Your task to perform on an android device: turn pop-ups on in chrome Image 0: 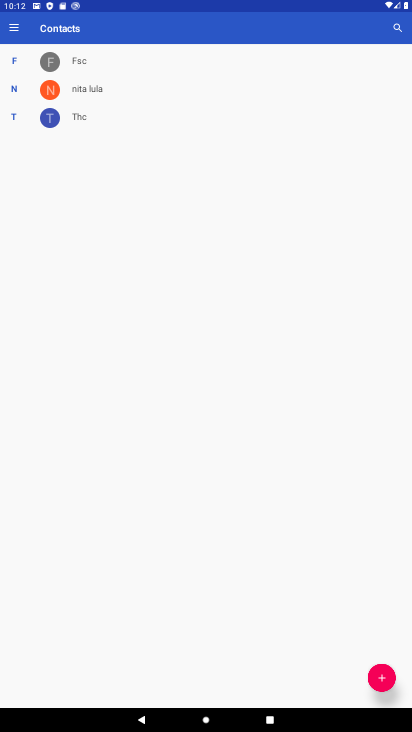
Step 0: press home button
Your task to perform on an android device: turn pop-ups on in chrome Image 1: 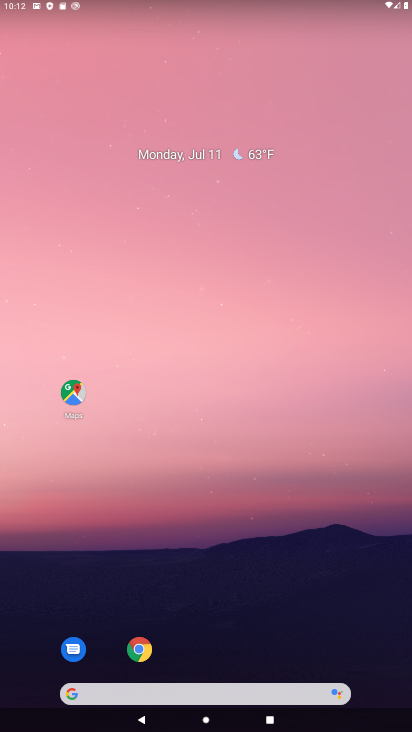
Step 1: click (131, 649)
Your task to perform on an android device: turn pop-ups on in chrome Image 2: 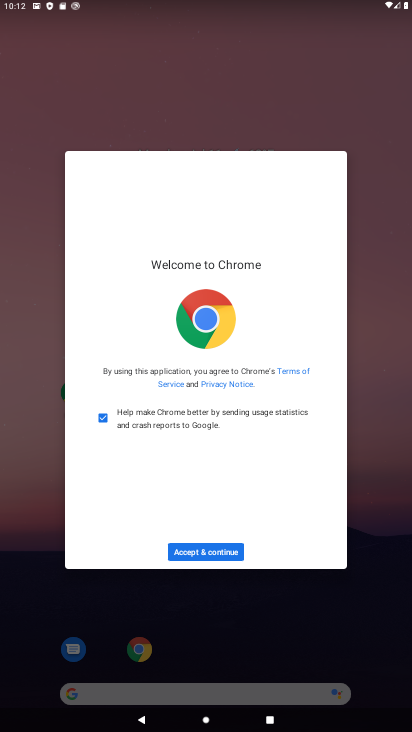
Step 2: click (211, 552)
Your task to perform on an android device: turn pop-ups on in chrome Image 3: 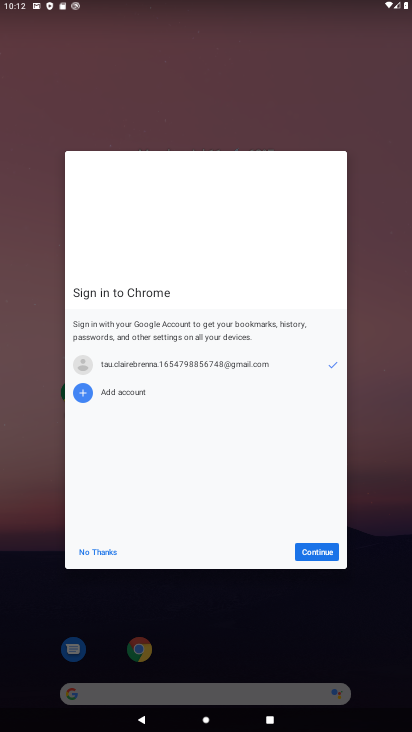
Step 3: click (339, 561)
Your task to perform on an android device: turn pop-ups on in chrome Image 4: 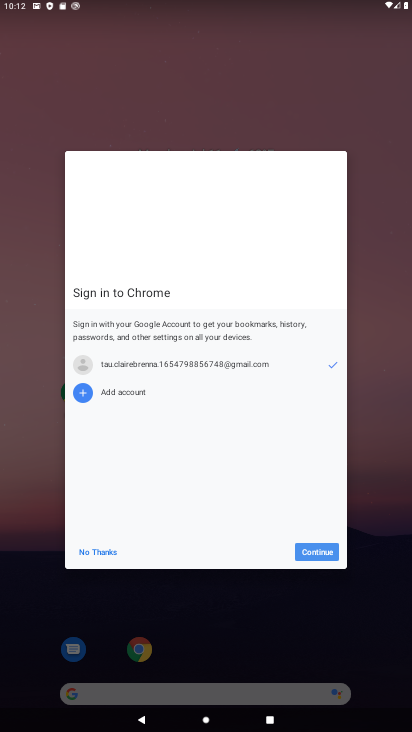
Step 4: click (334, 556)
Your task to perform on an android device: turn pop-ups on in chrome Image 5: 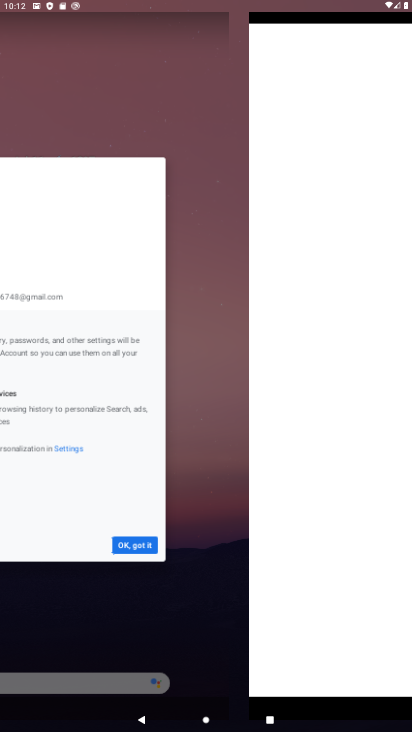
Step 5: click (334, 556)
Your task to perform on an android device: turn pop-ups on in chrome Image 6: 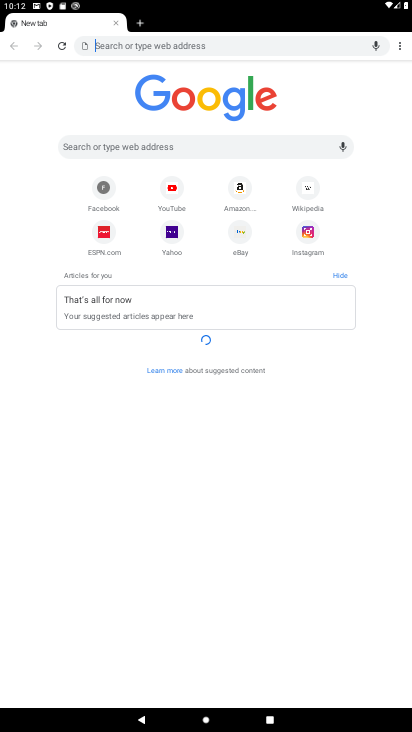
Step 6: click (402, 38)
Your task to perform on an android device: turn pop-ups on in chrome Image 7: 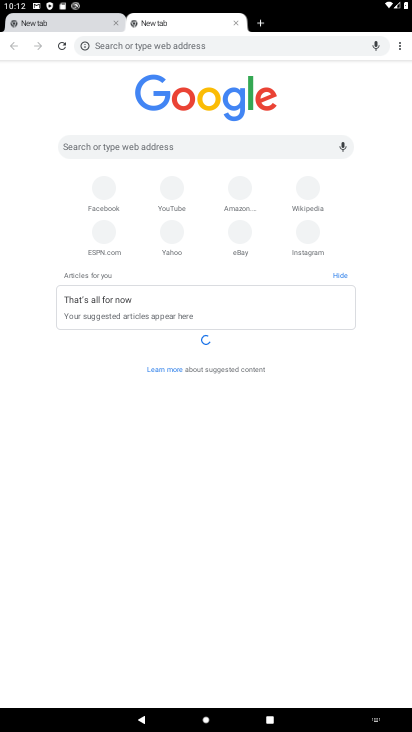
Step 7: click (402, 43)
Your task to perform on an android device: turn pop-ups on in chrome Image 8: 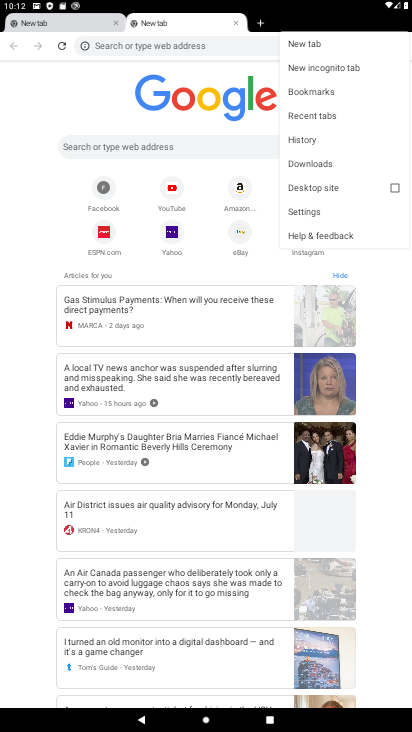
Step 8: click (310, 211)
Your task to perform on an android device: turn pop-ups on in chrome Image 9: 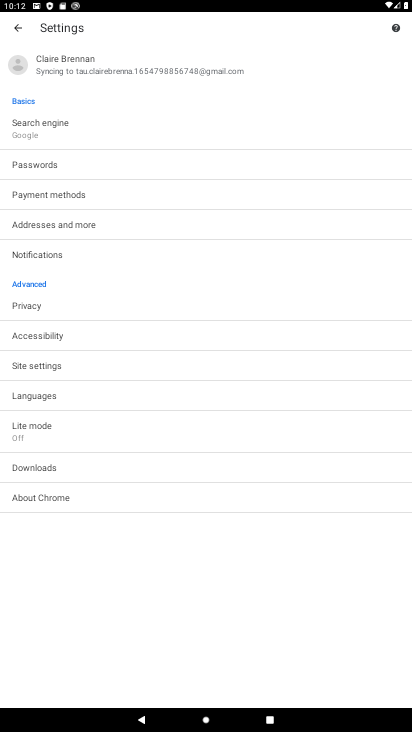
Step 9: click (78, 363)
Your task to perform on an android device: turn pop-ups on in chrome Image 10: 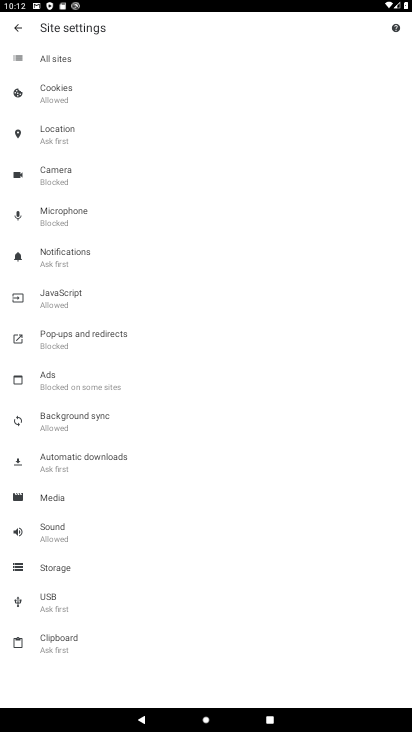
Step 10: click (87, 338)
Your task to perform on an android device: turn pop-ups on in chrome Image 11: 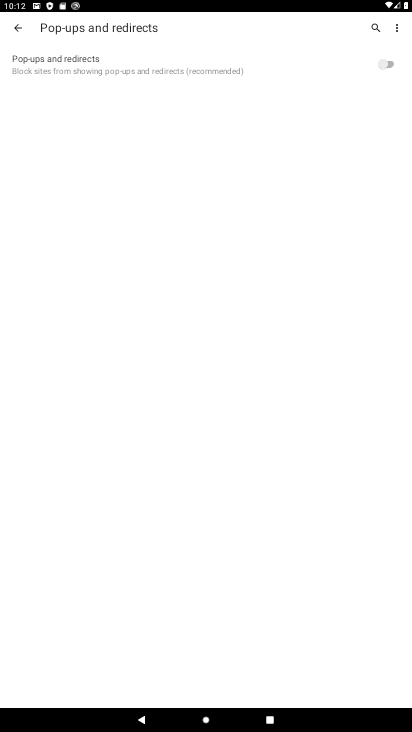
Step 11: click (378, 65)
Your task to perform on an android device: turn pop-ups on in chrome Image 12: 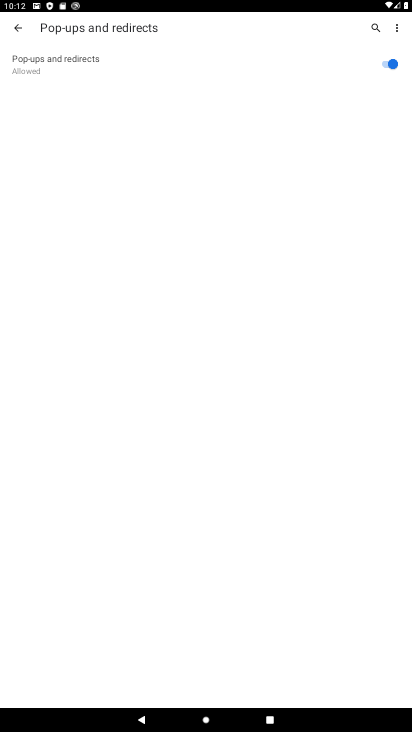
Step 12: task complete